Your task to perform on an android device: turn on javascript in the chrome app Image 0: 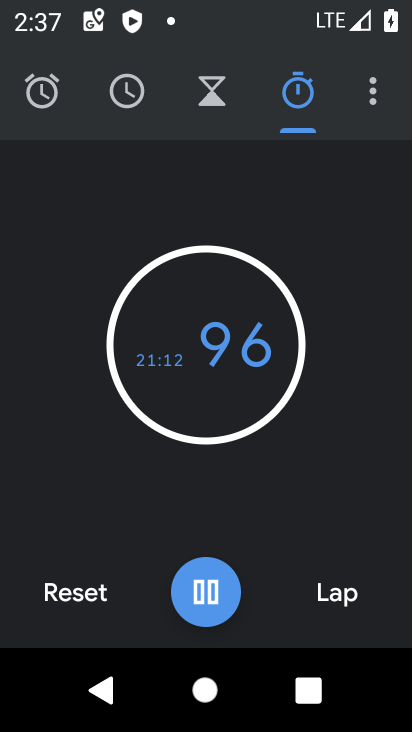
Step 0: press home button
Your task to perform on an android device: turn on javascript in the chrome app Image 1: 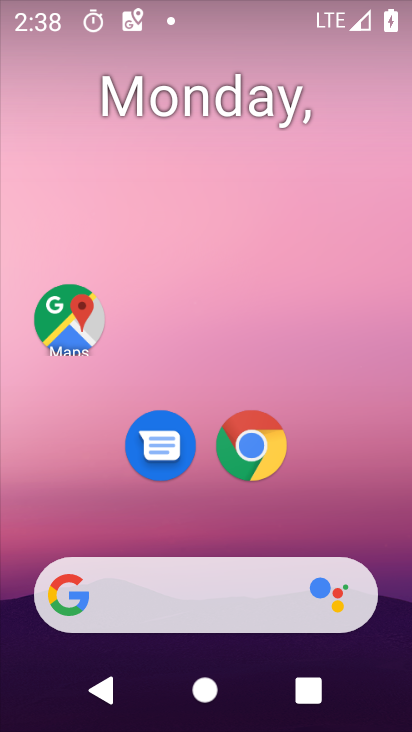
Step 1: click (253, 461)
Your task to perform on an android device: turn on javascript in the chrome app Image 2: 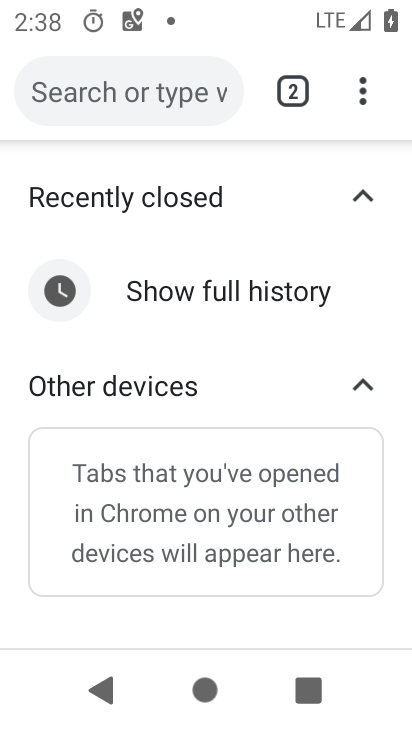
Step 2: drag from (366, 86) to (286, 481)
Your task to perform on an android device: turn on javascript in the chrome app Image 3: 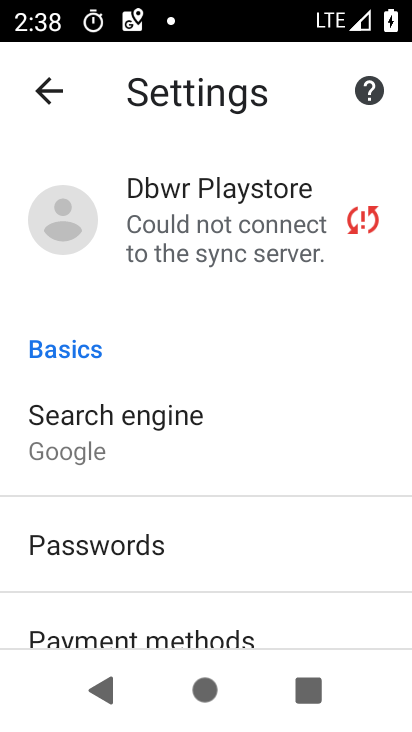
Step 3: drag from (108, 600) to (111, 293)
Your task to perform on an android device: turn on javascript in the chrome app Image 4: 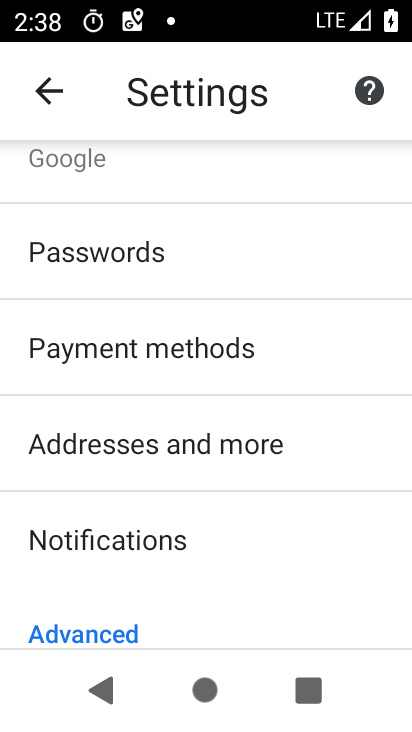
Step 4: drag from (139, 573) to (178, 89)
Your task to perform on an android device: turn on javascript in the chrome app Image 5: 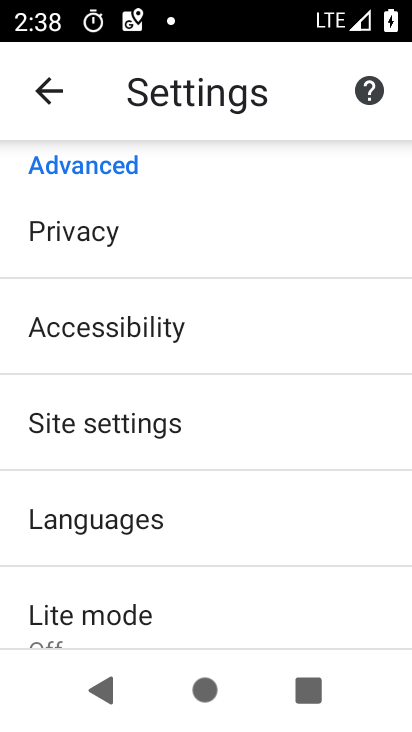
Step 5: click (137, 444)
Your task to perform on an android device: turn on javascript in the chrome app Image 6: 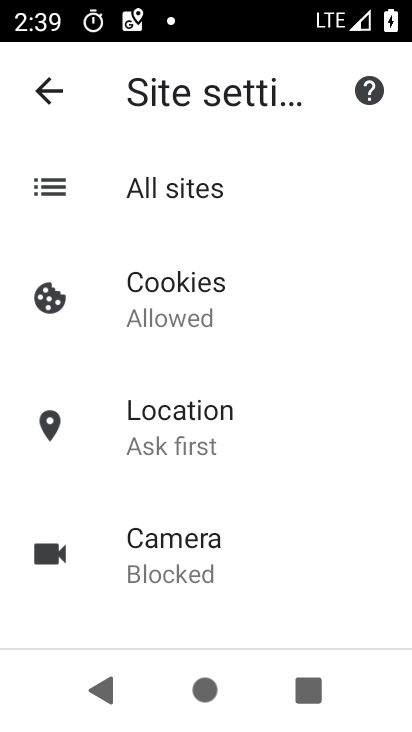
Step 6: drag from (338, 586) to (401, 67)
Your task to perform on an android device: turn on javascript in the chrome app Image 7: 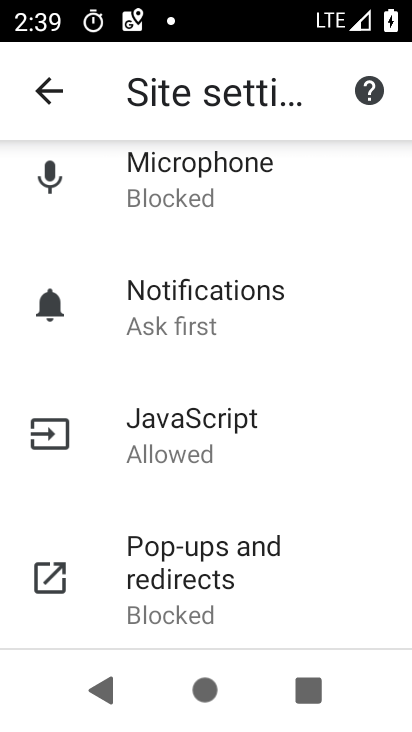
Step 7: click (188, 440)
Your task to perform on an android device: turn on javascript in the chrome app Image 8: 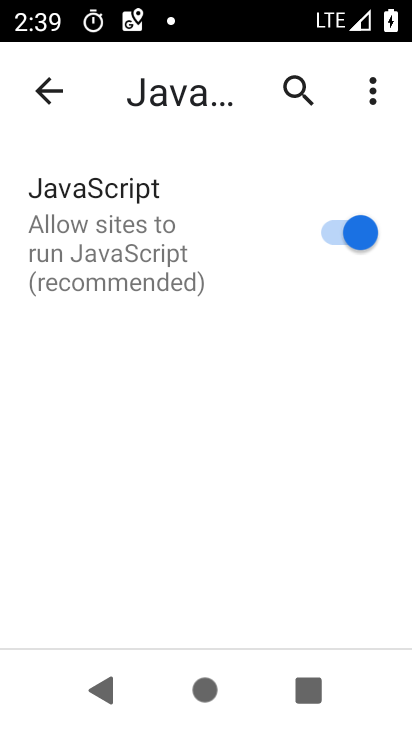
Step 8: task complete